Your task to perform on an android device: turn off notifications in google photos Image 0: 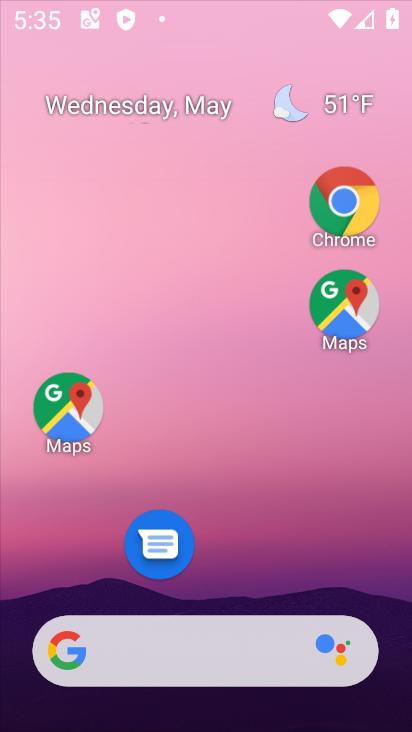
Step 0: press home button
Your task to perform on an android device: turn off notifications in google photos Image 1: 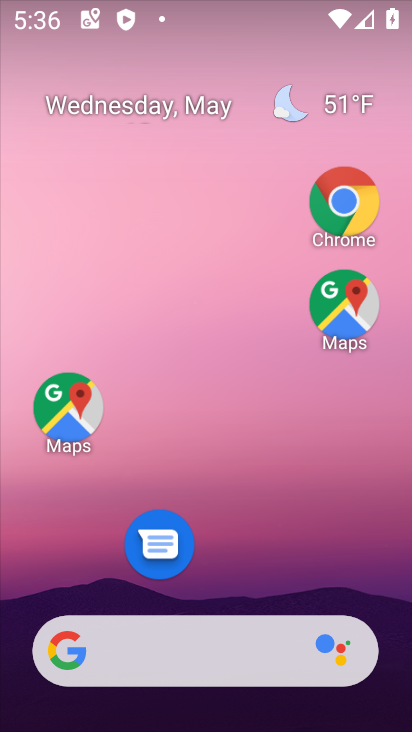
Step 1: drag from (225, 564) to (250, 75)
Your task to perform on an android device: turn off notifications in google photos Image 2: 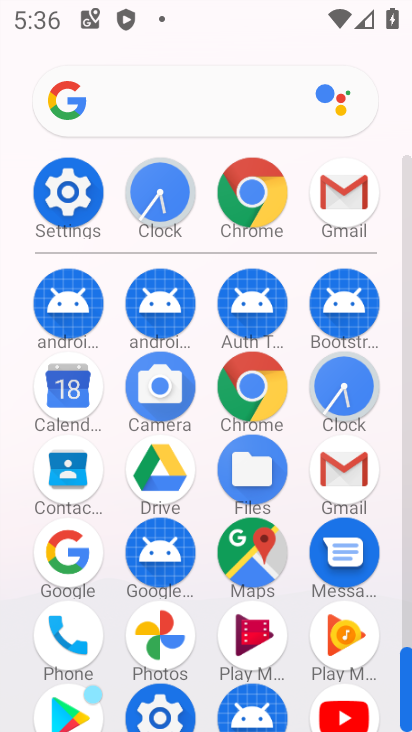
Step 2: click (156, 647)
Your task to perform on an android device: turn off notifications in google photos Image 3: 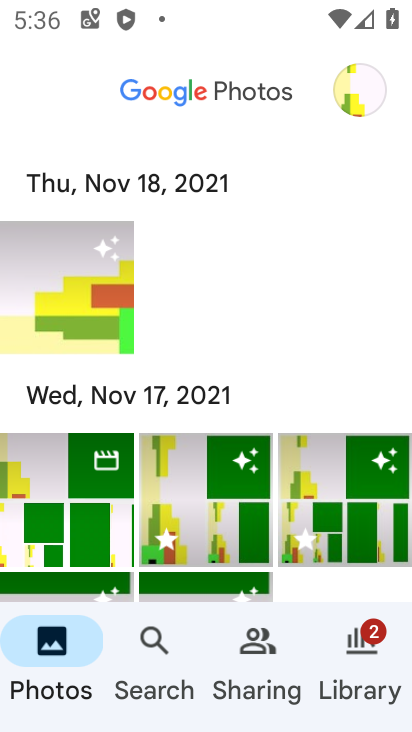
Step 3: click (344, 86)
Your task to perform on an android device: turn off notifications in google photos Image 4: 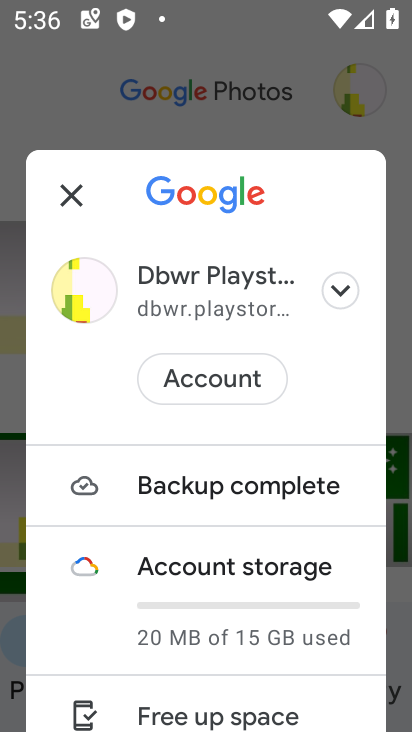
Step 4: drag from (224, 622) to (217, 369)
Your task to perform on an android device: turn off notifications in google photos Image 5: 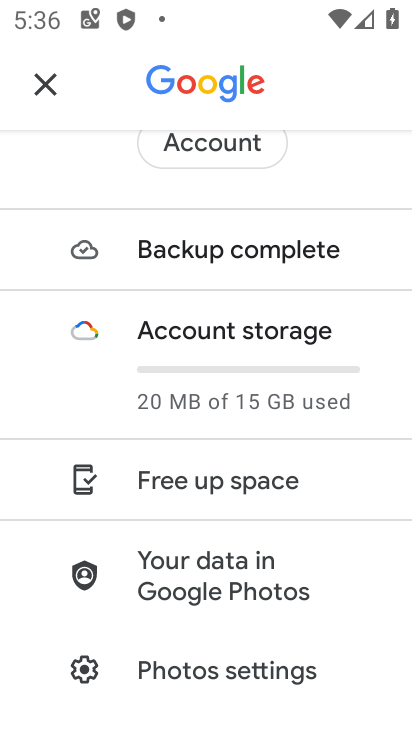
Step 5: click (231, 674)
Your task to perform on an android device: turn off notifications in google photos Image 6: 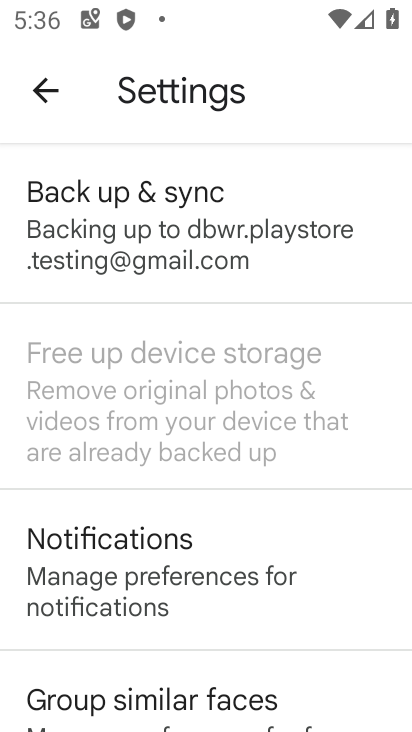
Step 6: click (168, 583)
Your task to perform on an android device: turn off notifications in google photos Image 7: 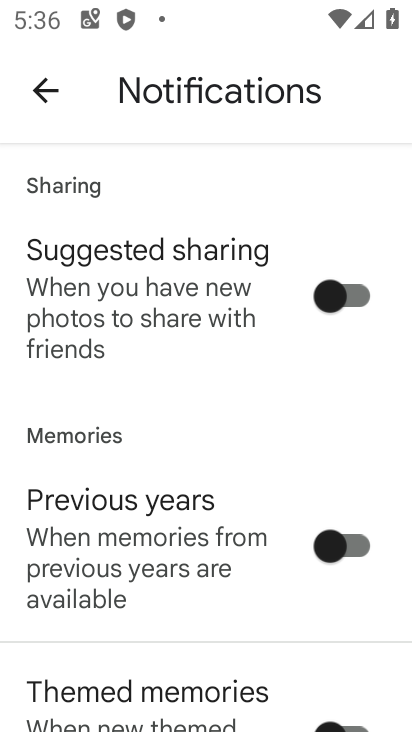
Step 7: task complete